Your task to perform on an android device: Search for pizza restaurants on Maps Image 0: 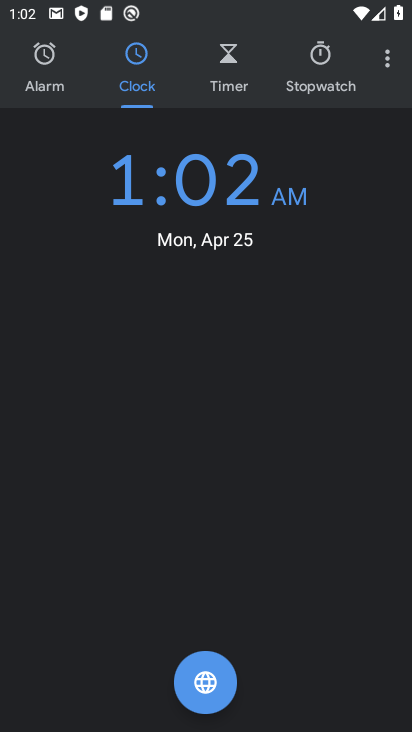
Step 0: press home button
Your task to perform on an android device: Search for pizza restaurants on Maps Image 1: 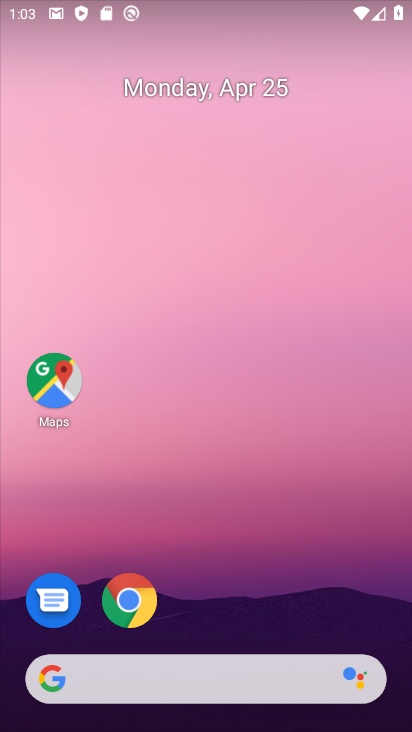
Step 1: drag from (178, 643) to (320, 174)
Your task to perform on an android device: Search for pizza restaurants on Maps Image 2: 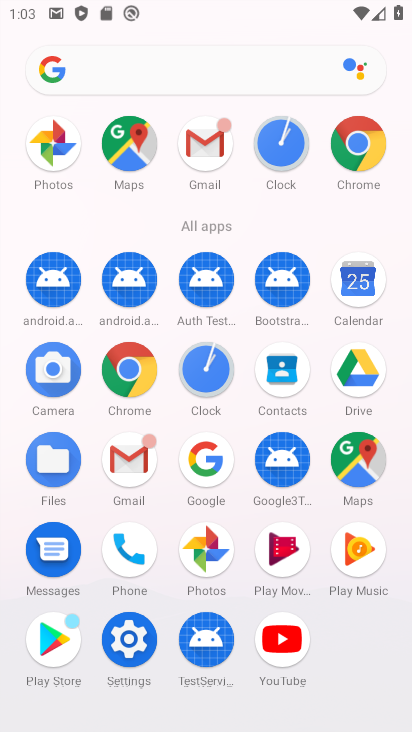
Step 2: click (128, 158)
Your task to perform on an android device: Search for pizza restaurants on Maps Image 3: 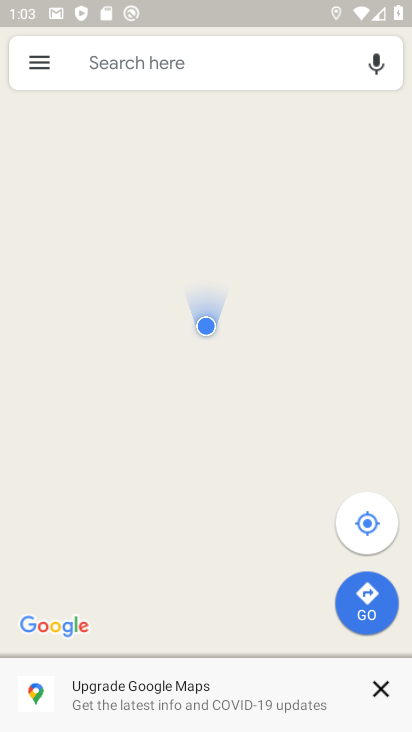
Step 3: click (132, 60)
Your task to perform on an android device: Search for pizza restaurants on Maps Image 4: 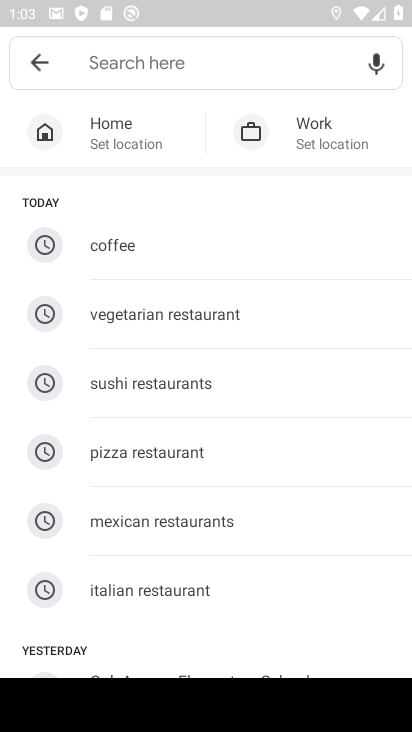
Step 4: click (156, 457)
Your task to perform on an android device: Search for pizza restaurants on Maps Image 5: 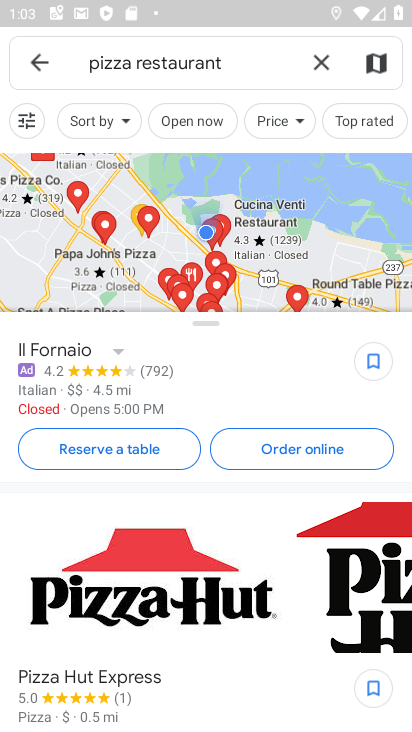
Step 5: task complete